Your task to perform on an android device: turn off picture-in-picture Image 0: 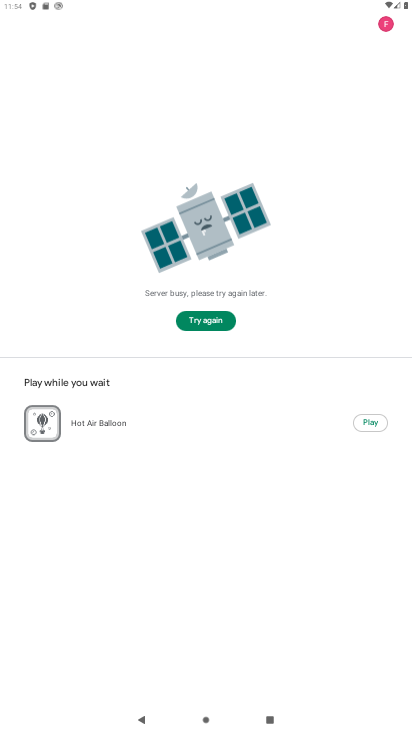
Step 0: press home button
Your task to perform on an android device: turn off picture-in-picture Image 1: 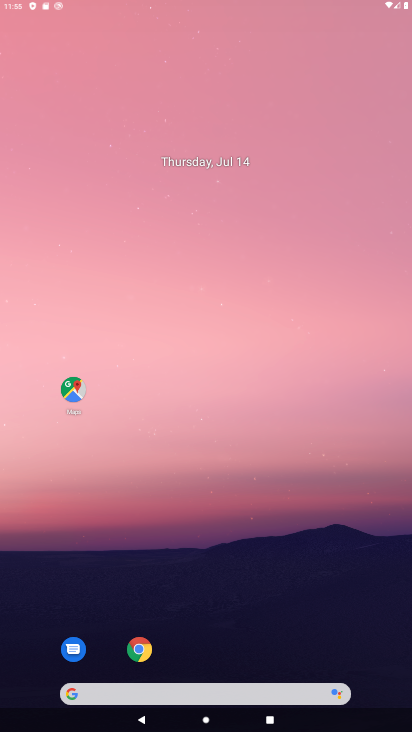
Step 1: drag from (190, 615) to (214, 136)
Your task to perform on an android device: turn off picture-in-picture Image 2: 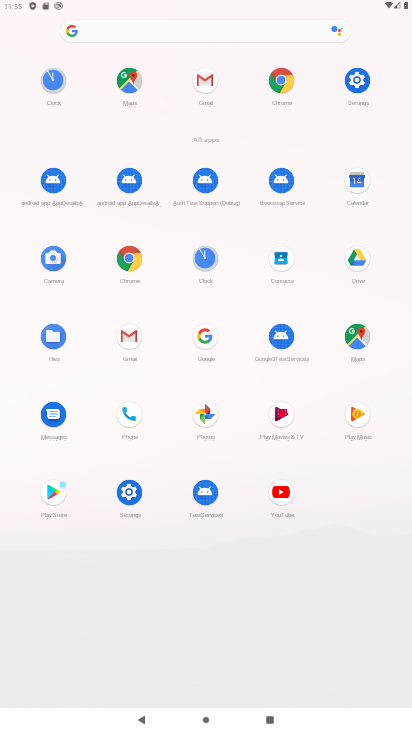
Step 2: click (362, 74)
Your task to perform on an android device: turn off picture-in-picture Image 3: 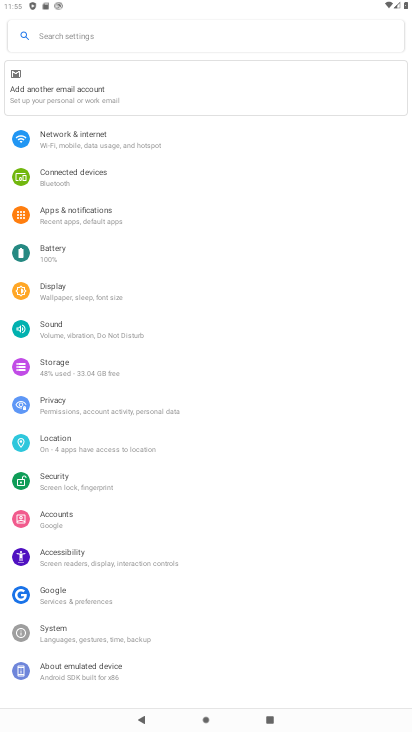
Step 3: click (107, 141)
Your task to perform on an android device: turn off picture-in-picture Image 4: 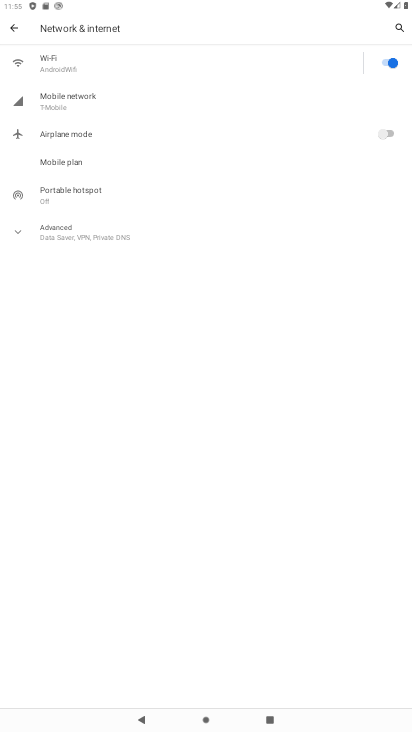
Step 4: click (27, 29)
Your task to perform on an android device: turn off picture-in-picture Image 5: 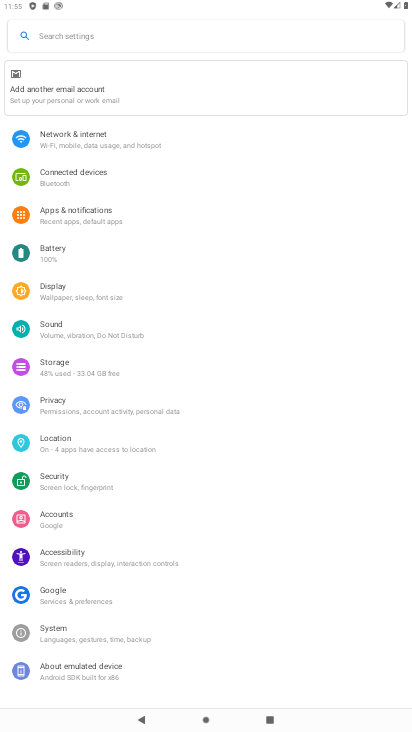
Step 5: click (74, 212)
Your task to perform on an android device: turn off picture-in-picture Image 6: 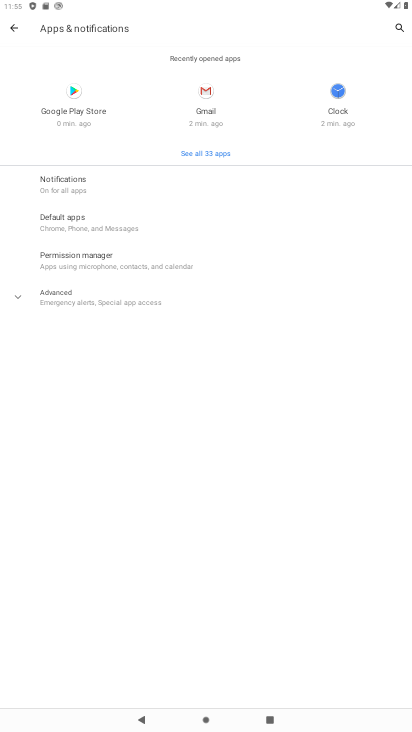
Step 6: click (116, 306)
Your task to perform on an android device: turn off picture-in-picture Image 7: 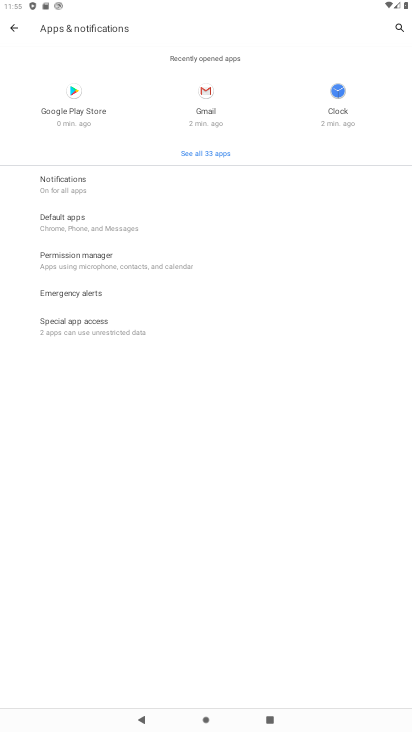
Step 7: click (116, 323)
Your task to perform on an android device: turn off picture-in-picture Image 8: 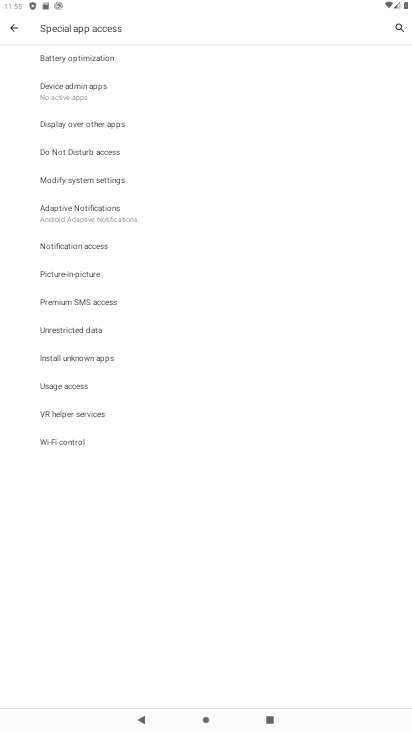
Step 8: click (81, 279)
Your task to perform on an android device: turn off picture-in-picture Image 9: 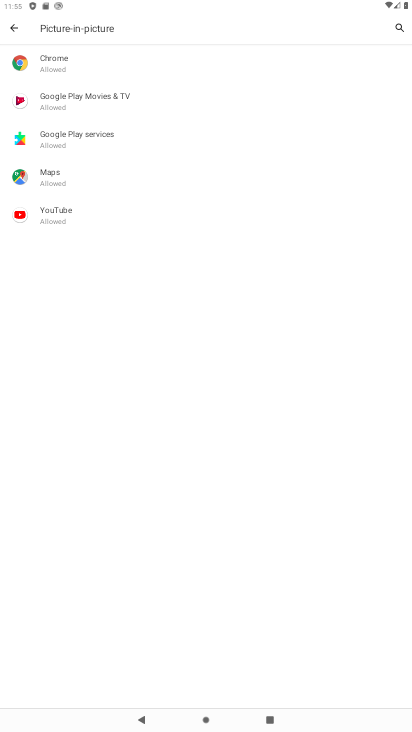
Step 9: click (93, 211)
Your task to perform on an android device: turn off picture-in-picture Image 10: 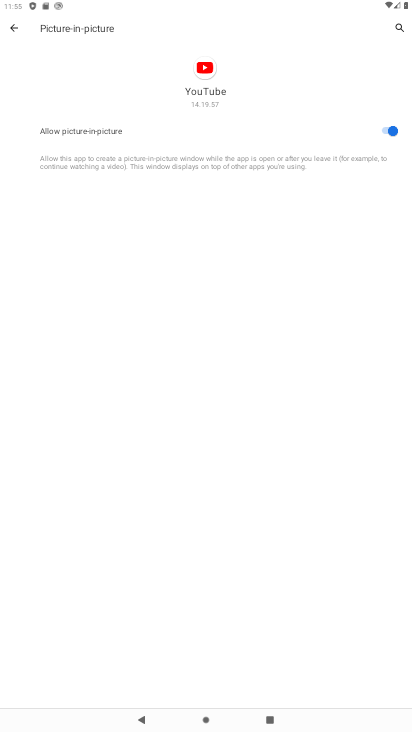
Step 10: click (370, 126)
Your task to perform on an android device: turn off picture-in-picture Image 11: 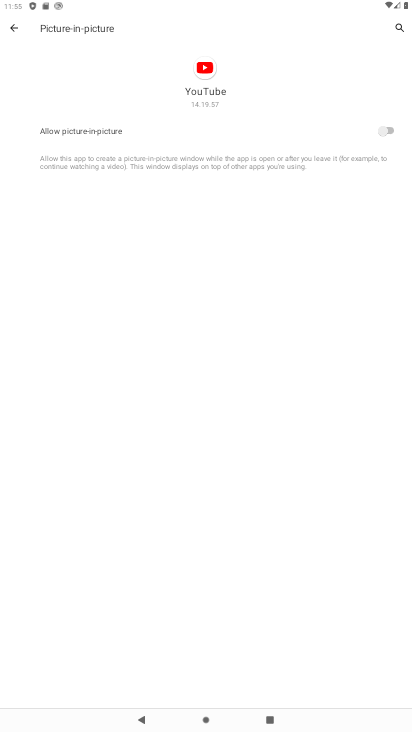
Step 11: task complete